Your task to perform on an android device: toggle notification dots Image 0: 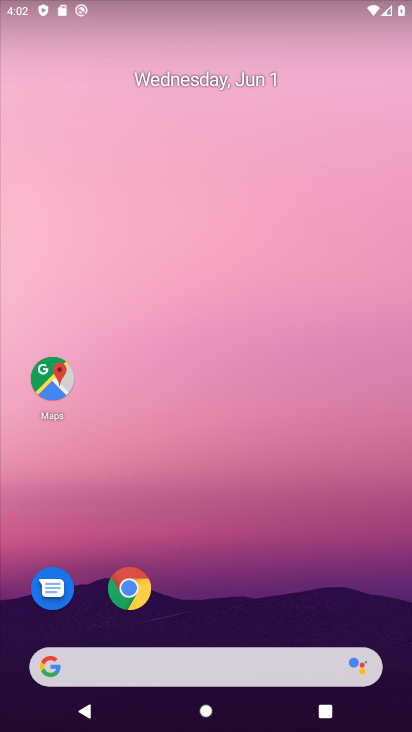
Step 0: drag from (234, 588) to (239, 224)
Your task to perform on an android device: toggle notification dots Image 1: 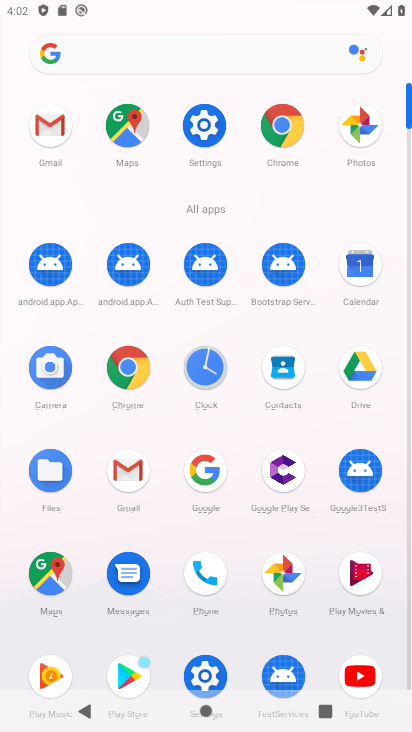
Step 1: click (208, 141)
Your task to perform on an android device: toggle notification dots Image 2: 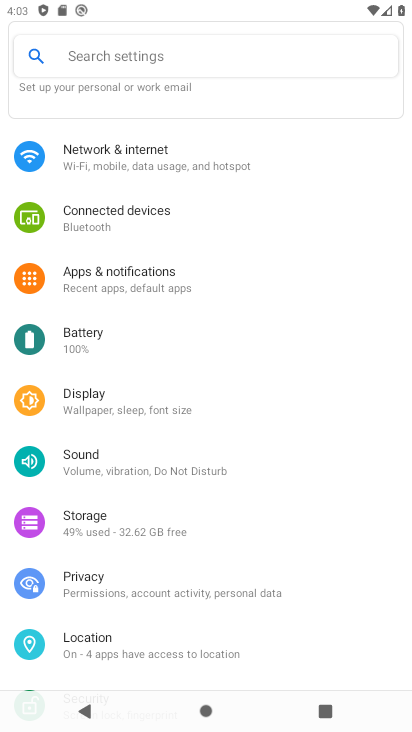
Step 2: click (210, 270)
Your task to perform on an android device: toggle notification dots Image 3: 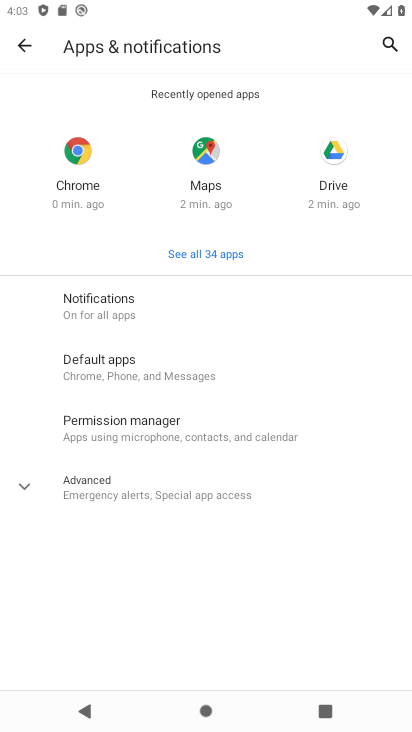
Step 3: click (156, 294)
Your task to perform on an android device: toggle notification dots Image 4: 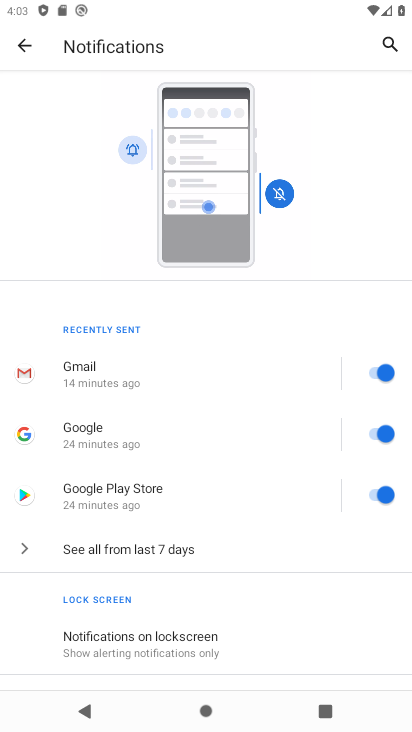
Step 4: drag from (290, 639) to (217, 212)
Your task to perform on an android device: toggle notification dots Image 5: 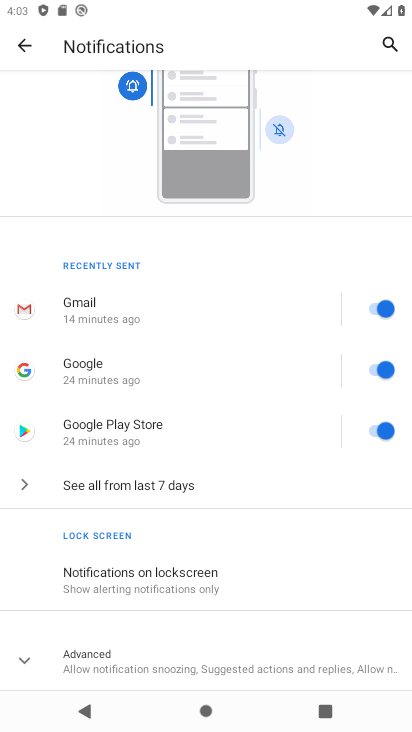
Step 5: click (273, 674)
Your task to perform on an android device: toggle notification dots Image 6: 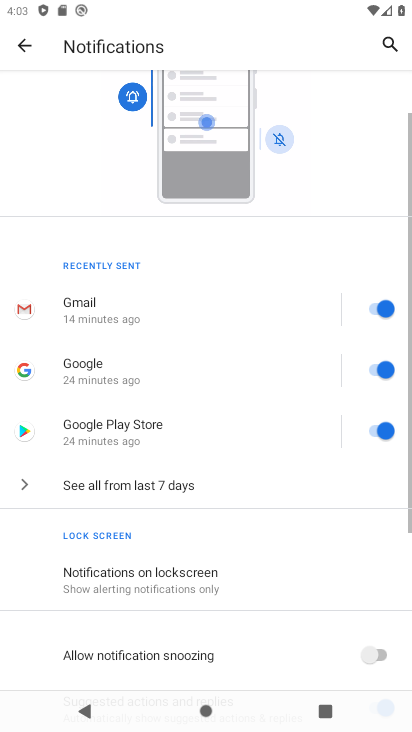
Step 6: drag from (273, 674) to (217, 321)
Your task to perform on an android device: toggle notification dots Image 7: 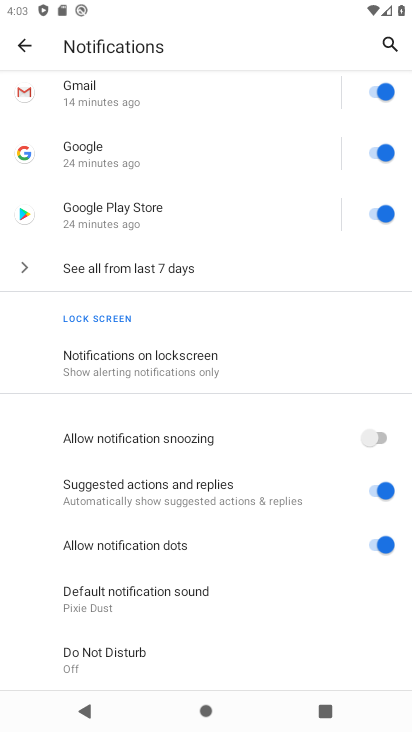
Step 7: click (377, 546)
Your task to perform on an android device: toggle notification dots Image 8: 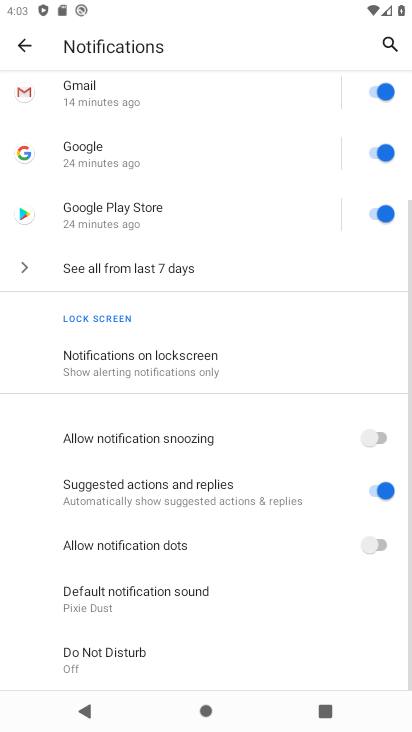
Step 8: task complete